Your task to perform on an android device: Open network settings Image 0: 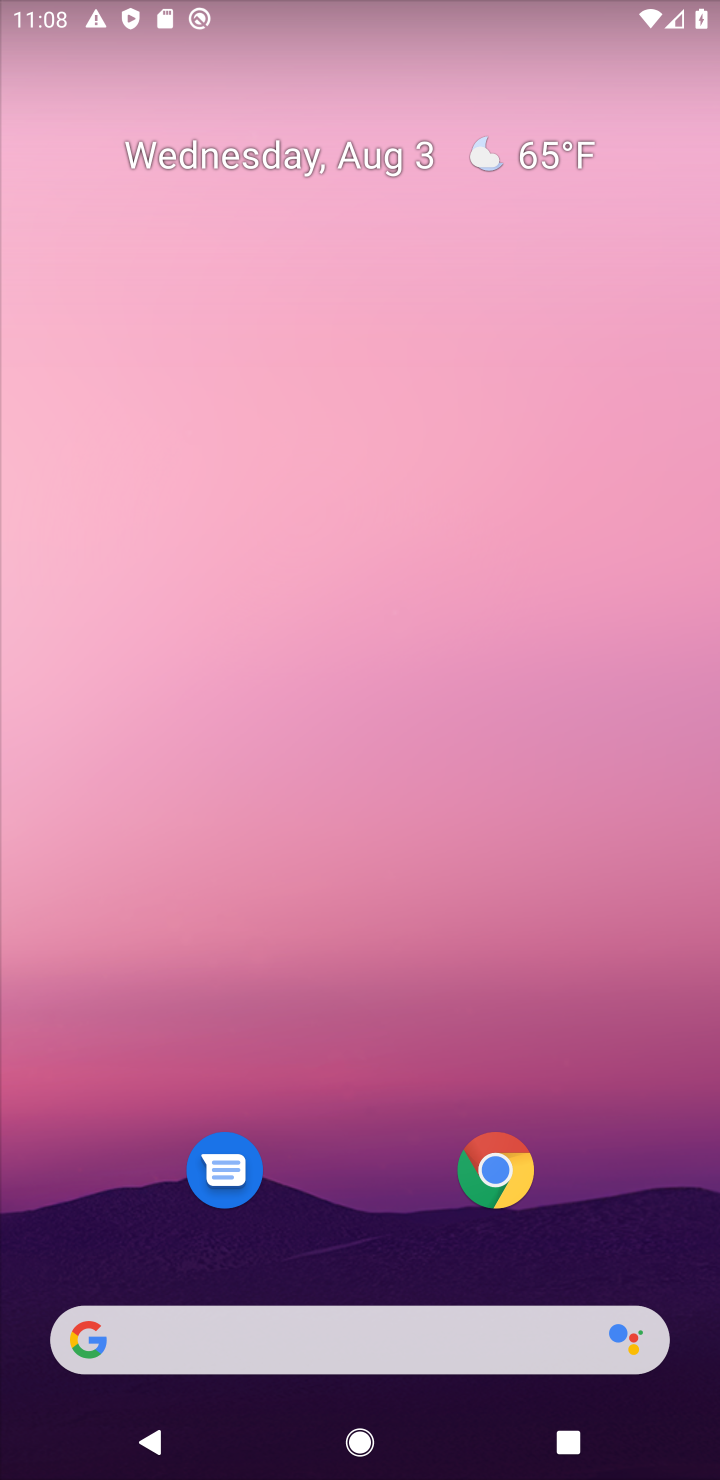
Step 0: drag from (273, 1127) to (475, 56)
Your task to perform on an android device: Open network settings Image 1: 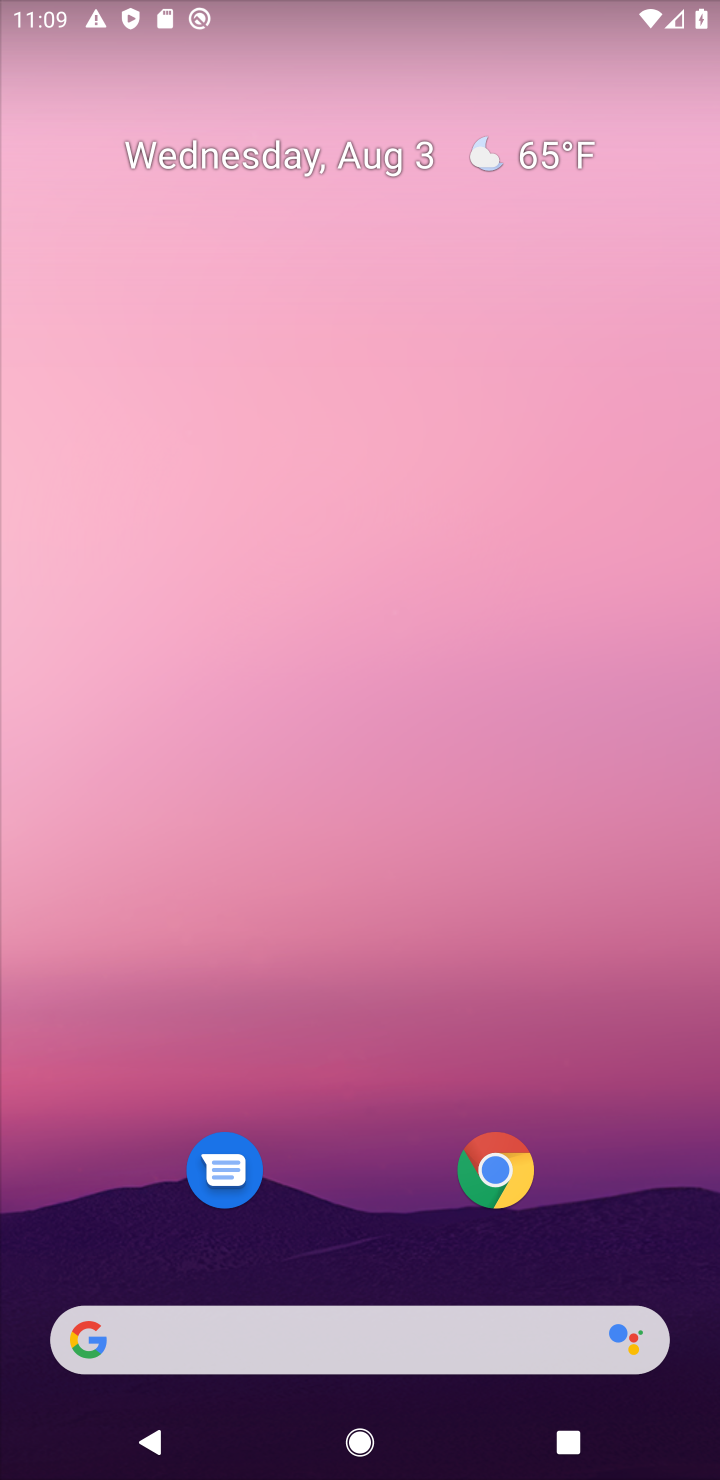
Step 1: drag from (304, 1180) to (297, 184)
Your task to perform on an android device: Open network settings Image 2: 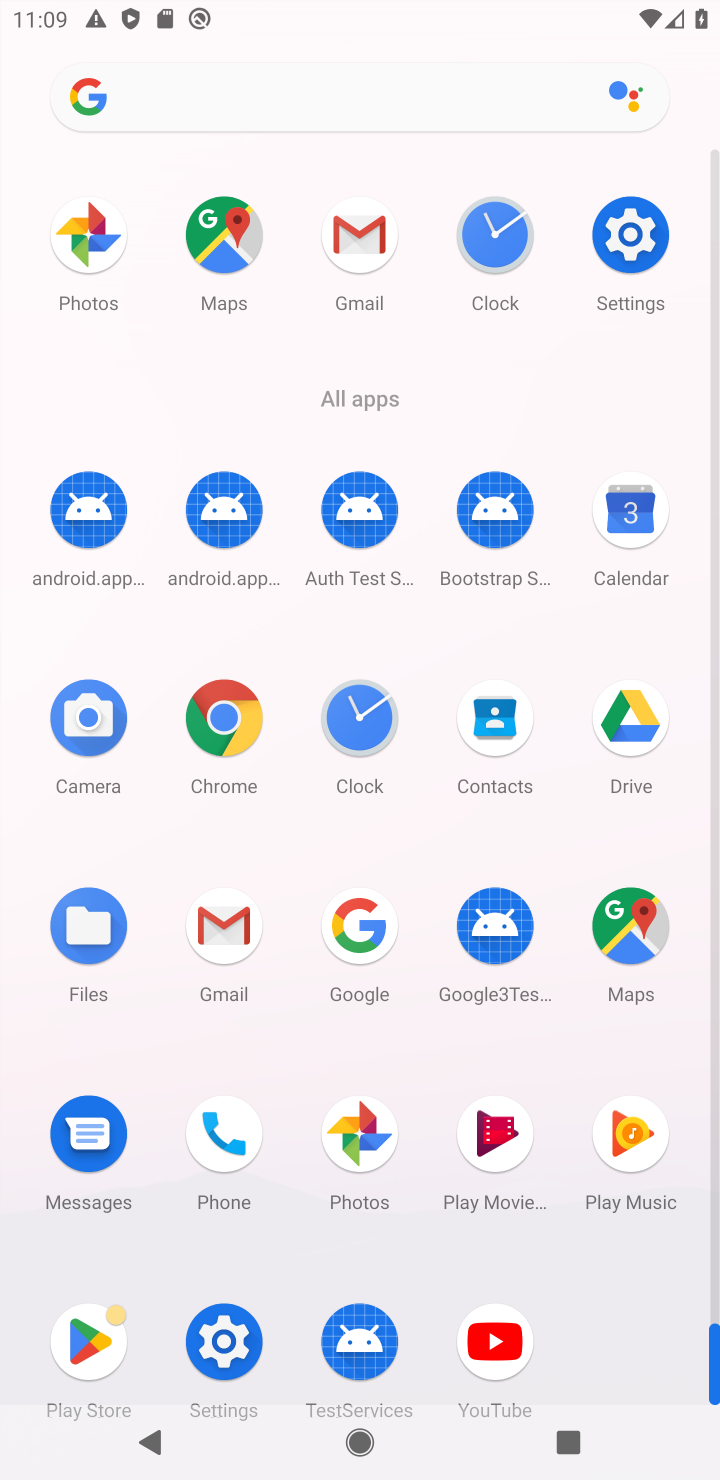
Step 2: drag from (446, 527) to (426, 436)
Your task to perform on an android device: Open network settings Image 3: 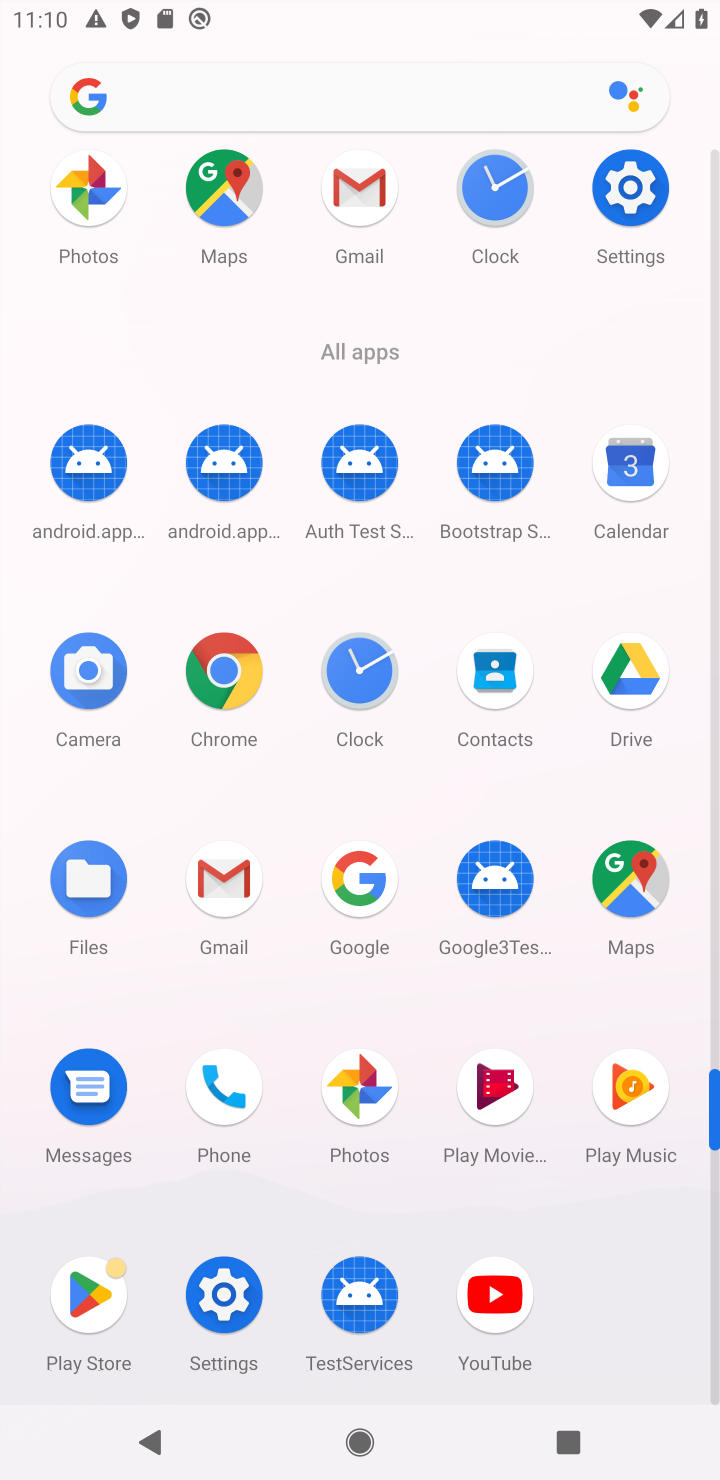
Step 3: click (227, 1286)
Your task to perform on an android device: Open network settings Image 4: 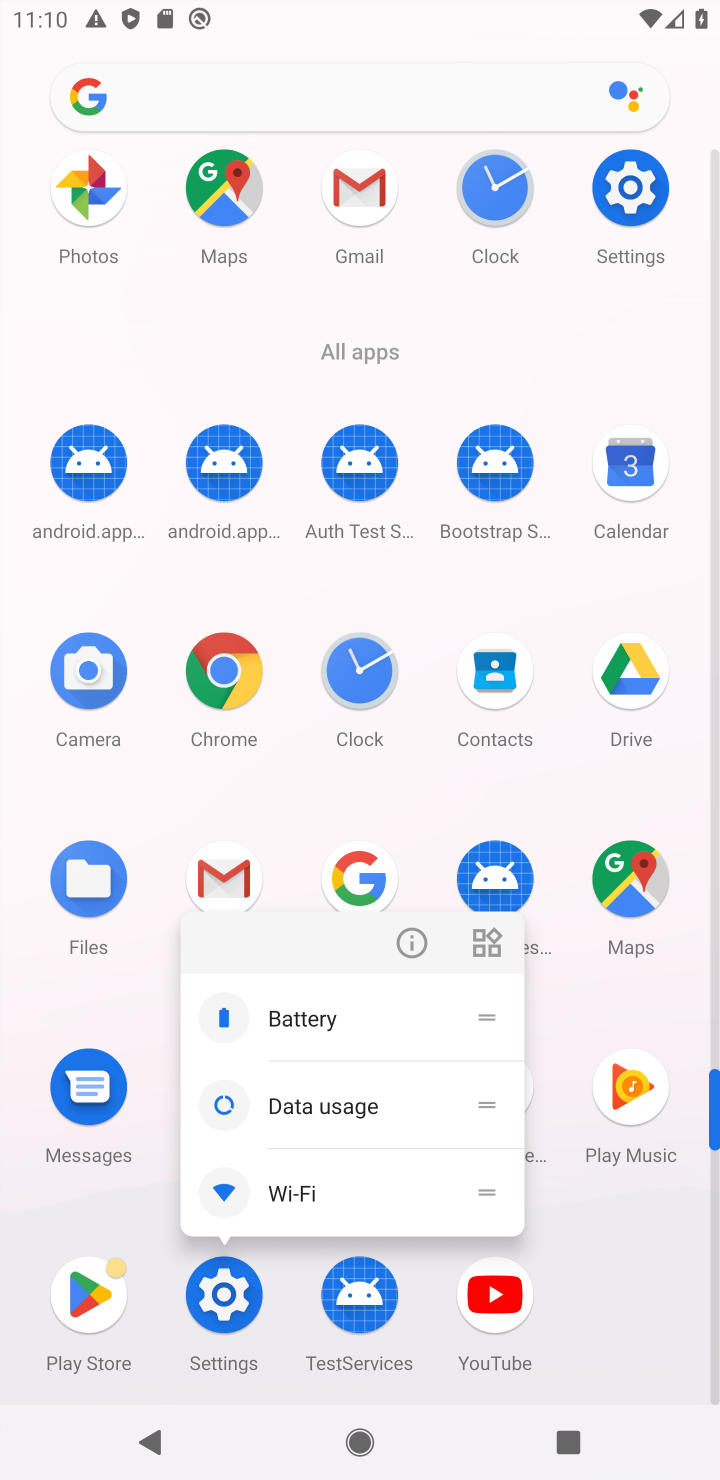
Step 4: click (413, 942)
Your task to perform on an android device: Open network settings Image 5: 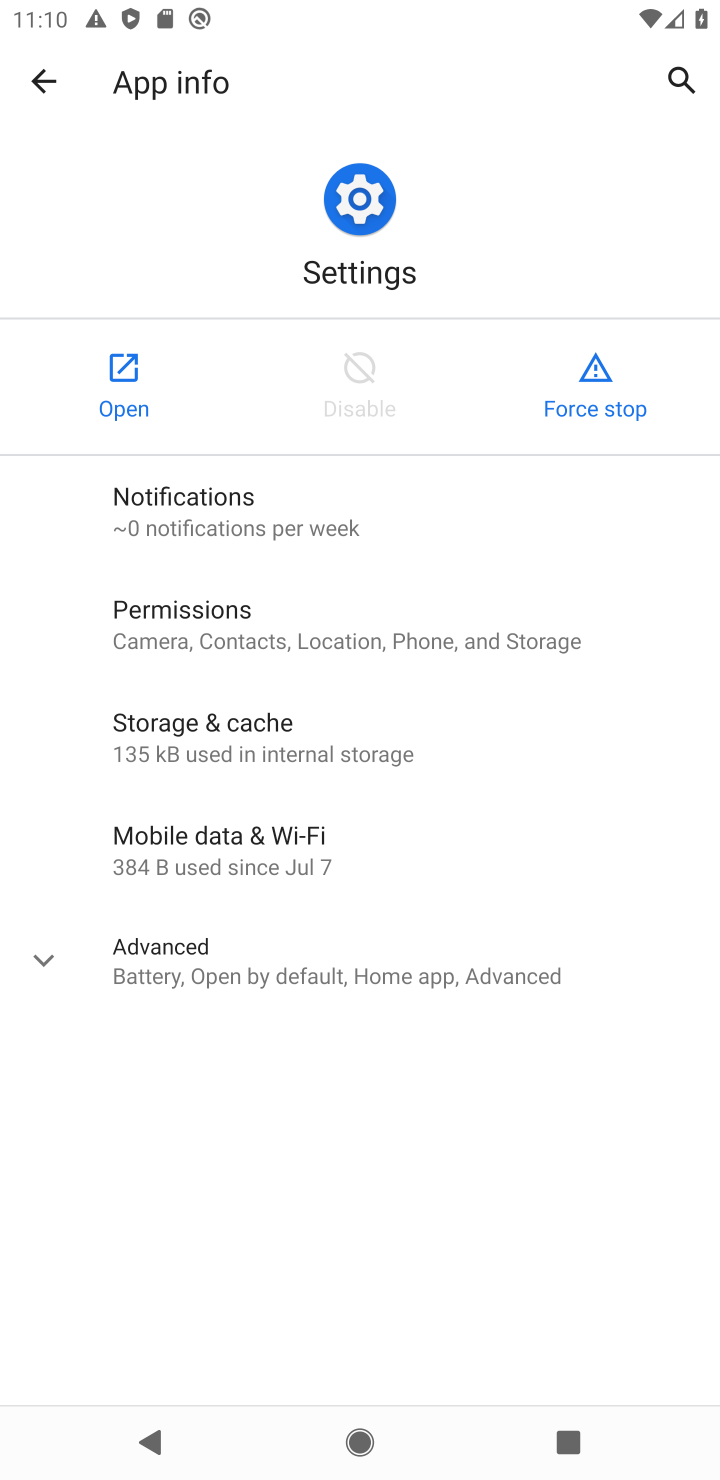
Step 5: click (116, 377)
Your task to perform on an android device: Open network settings Image 6: 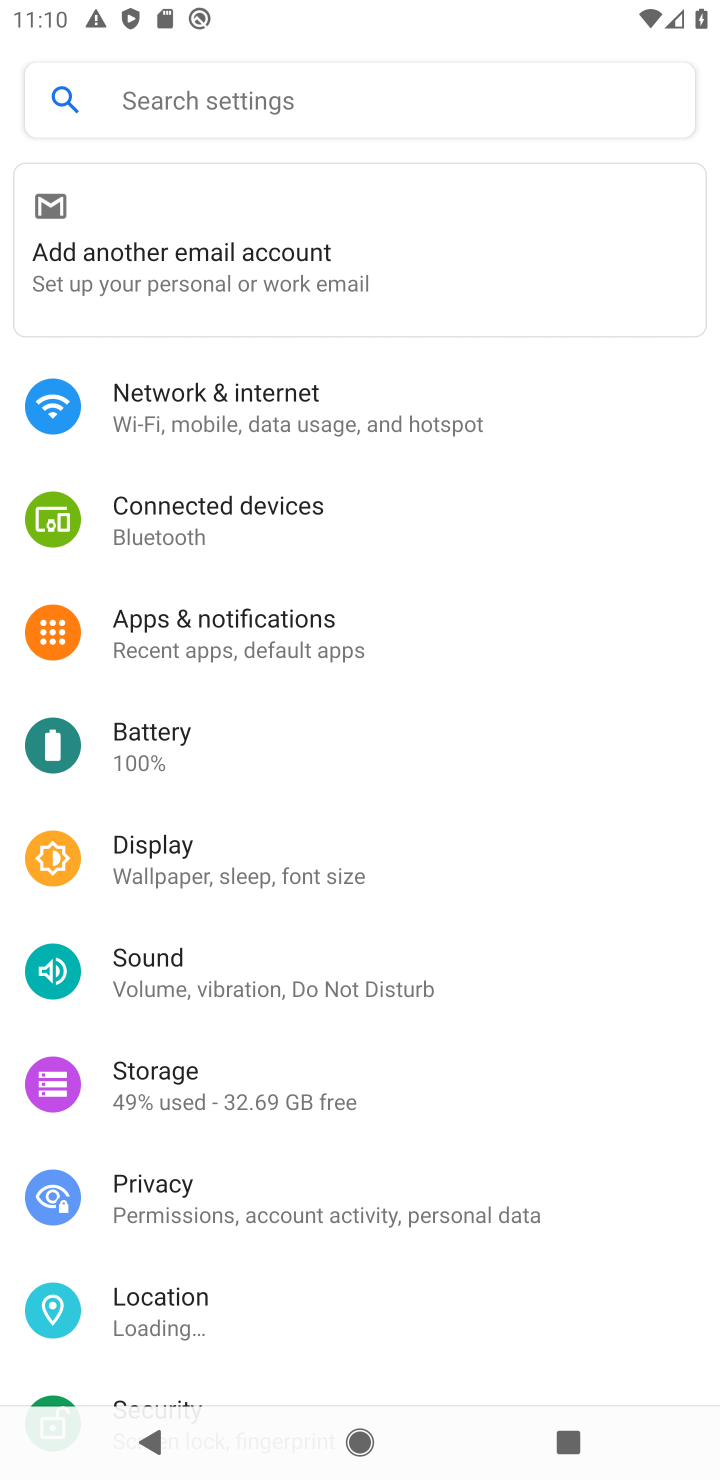
Step 6: drag from (356, 409) to (418, 947)
Your task to perform on an android device: Open network settings Image 7: 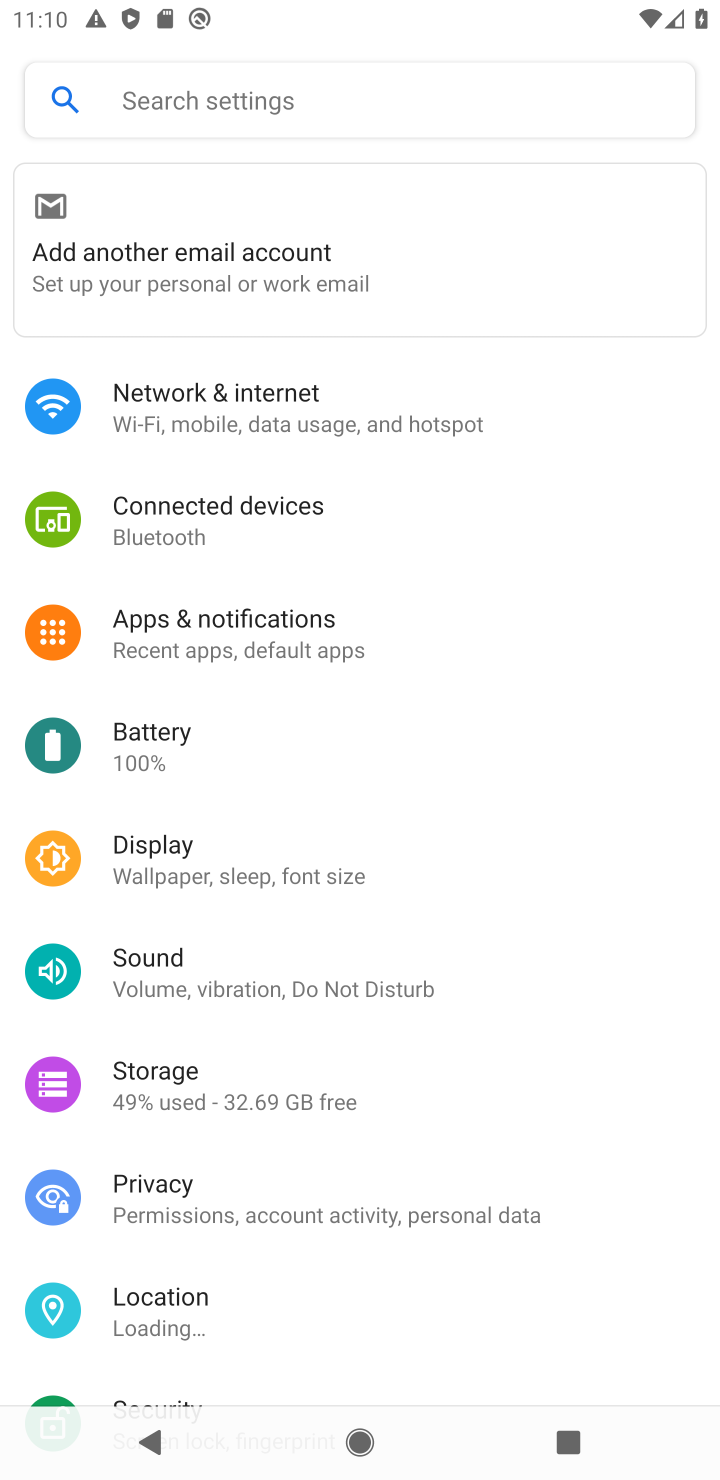
Step 7: click (273, 428)
Your task to perform on an android device: Open network settings Image 8: 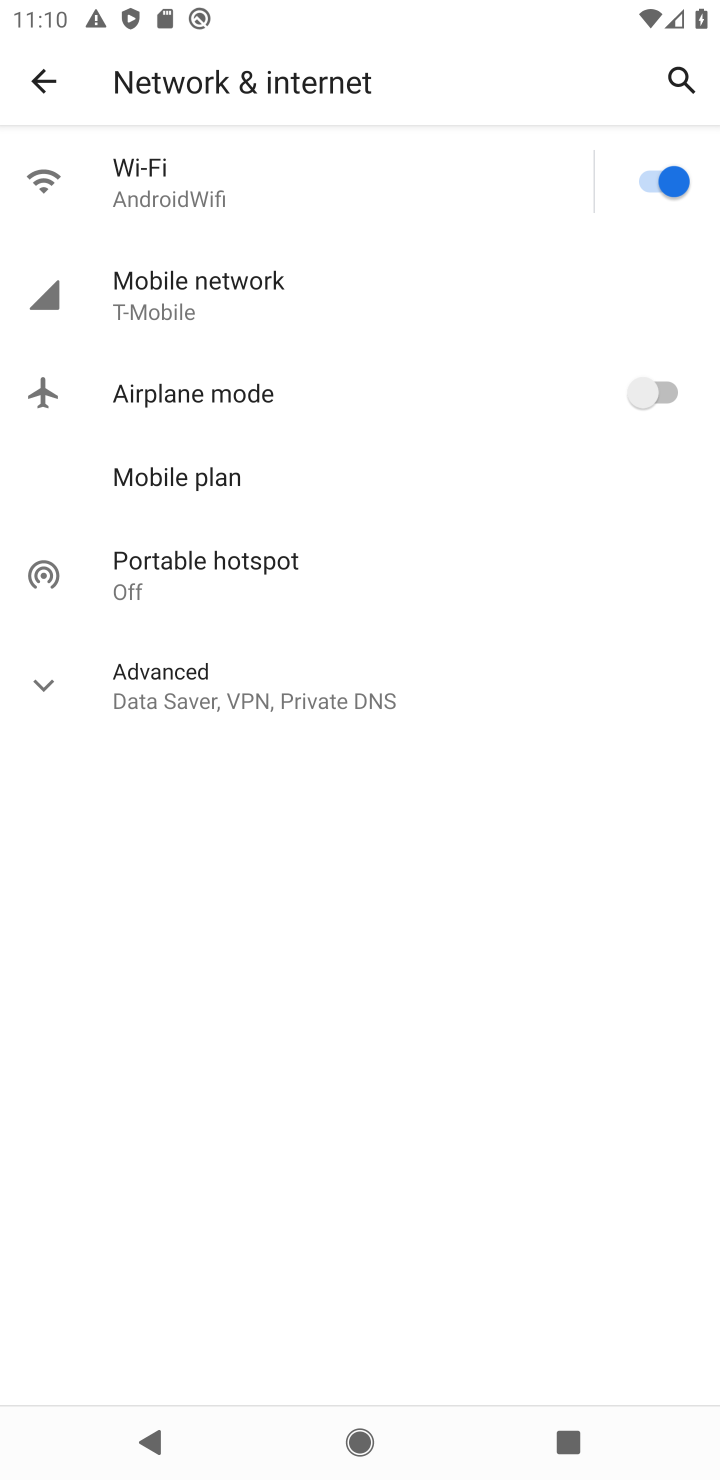
Step 8: task complete